Your task to perform on an android device: delete browsing data in the chrome app Image 0: 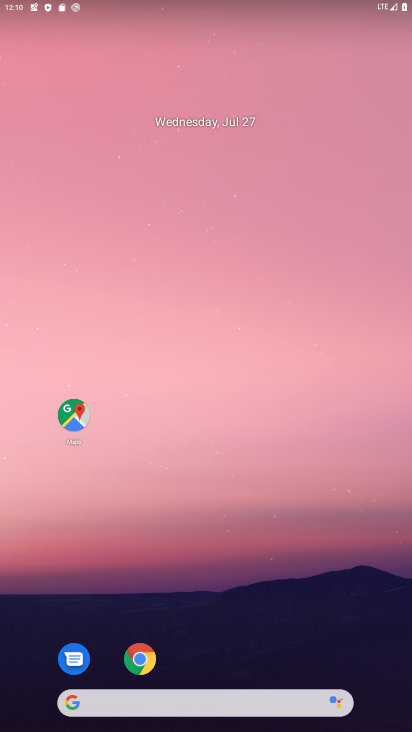
Step 0: click (141, 656)
Your task to perform on an android device: delete browsing data in the chrome app Image 1: 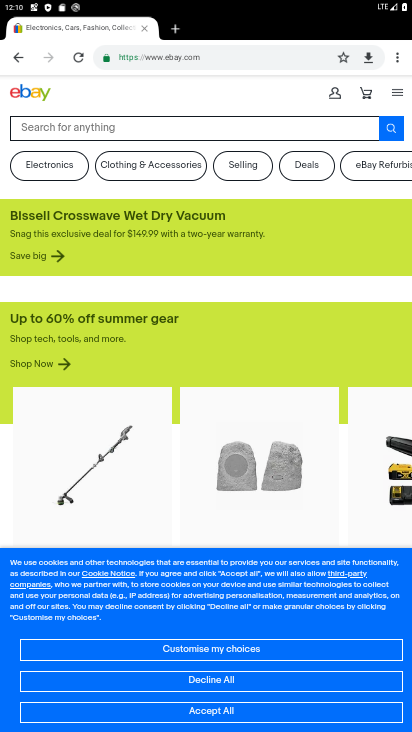
Step 1: click (393, 48)
Your task to perform on an android device: delete browsing data in the chrome app Image 2: 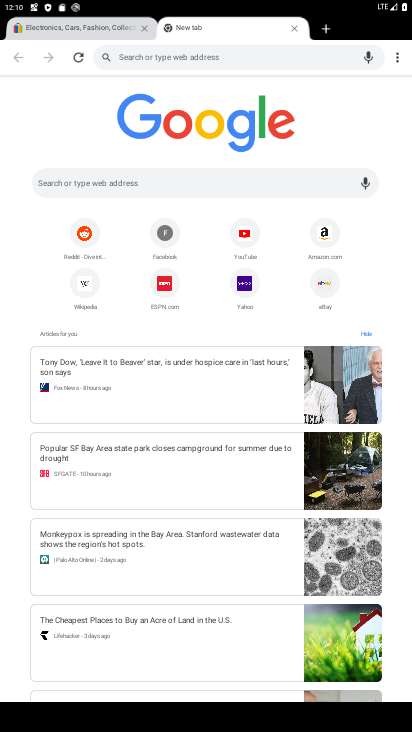
Step 2: click (394, 55)
Your task to perform on an android device: delete browsing data in the chrome app Image 3: 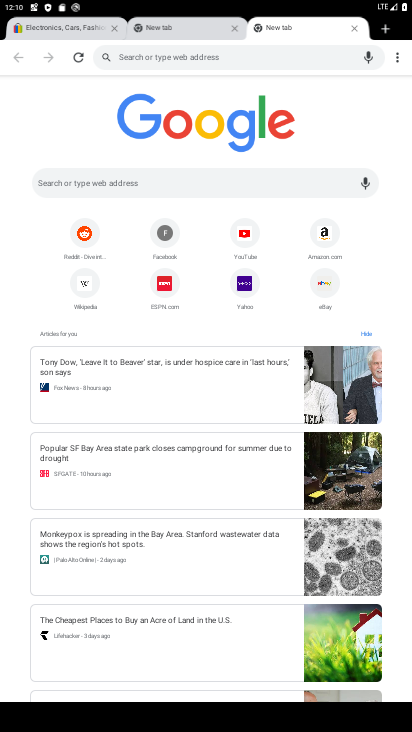
Step 3: click (111, 27)
Your task to perform on an android device: delete browsing data in the chrome app Image 4: 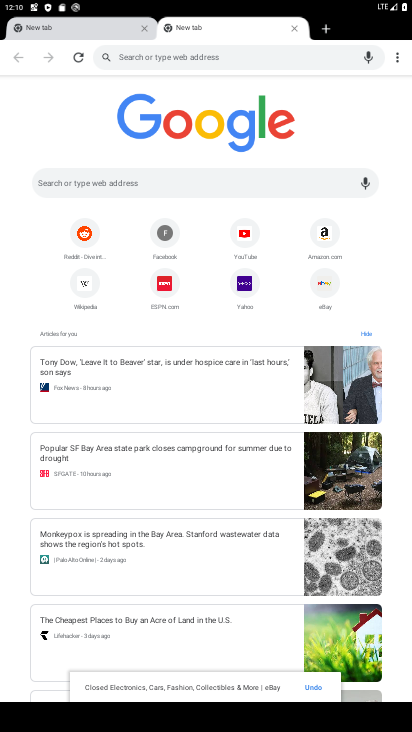
Step 4: click (111, 27)
Your task to perform on an android device: delete browsing data in the chrome app Image 5: 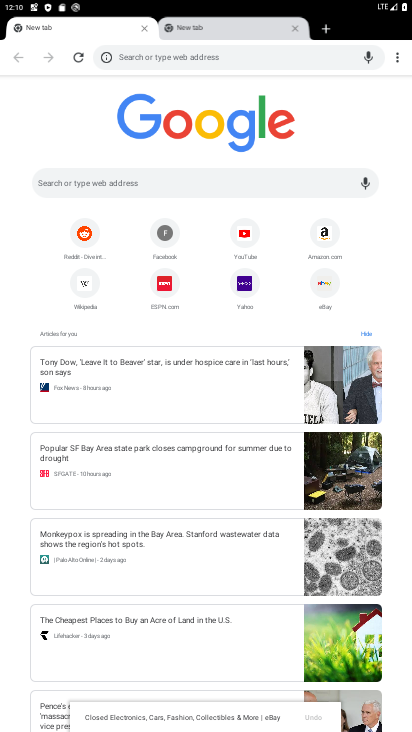
Step 5: click (146, 30)
Your task to perform on an android device: delete browsing data in the chrome app Image 6: 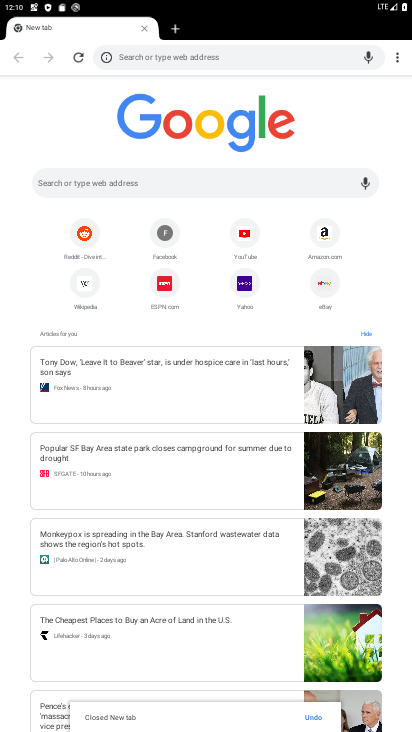
Step 6: click (398, 53)
Your task to perform on an android device: delete browsing data in the chrome app Image 7: 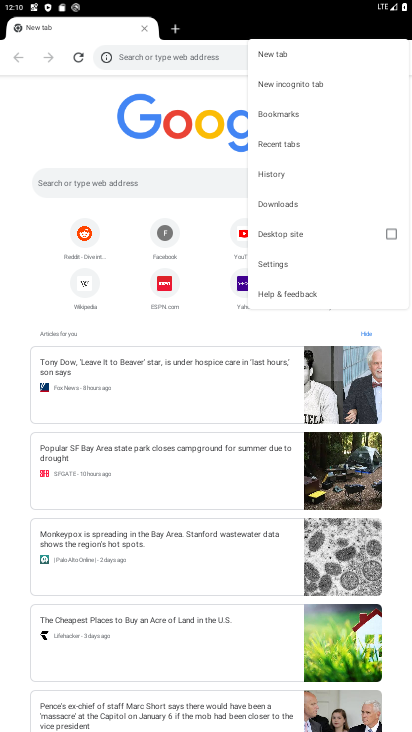
Step 7: click (282, 169)
Your task to perform on an android device: delete browsing data in the chrome app Image 8: 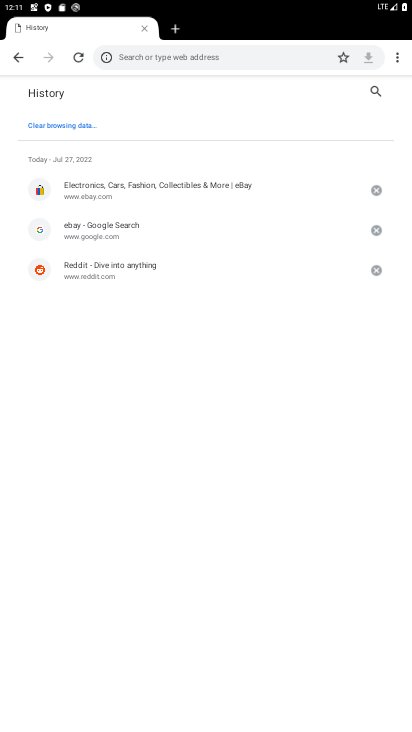
Step 8: click (52, 123)
Your task to perform on an android device: delete browsing data in the chrome app Image 9: 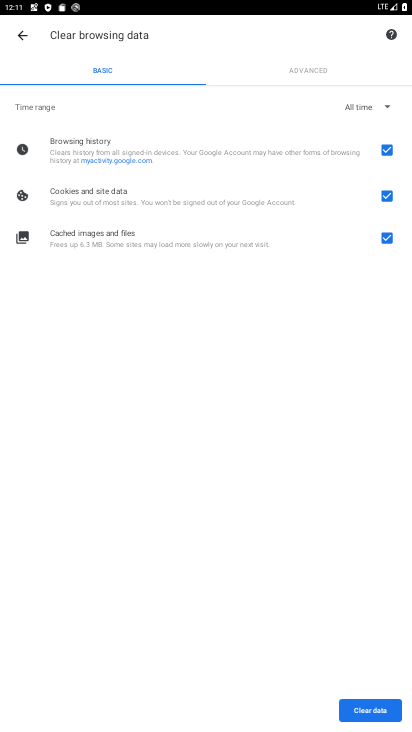
Step 9: click (378, 713)
Your task to perform on an android device: delete browsing data in the chrome app Image 10: 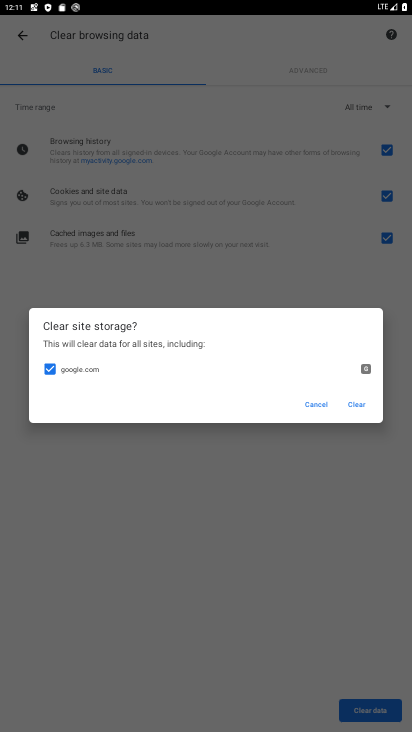
Step 10: click (356, 406)
Your task to perform on an android device: delete browsing data in the chrome app Image 11: 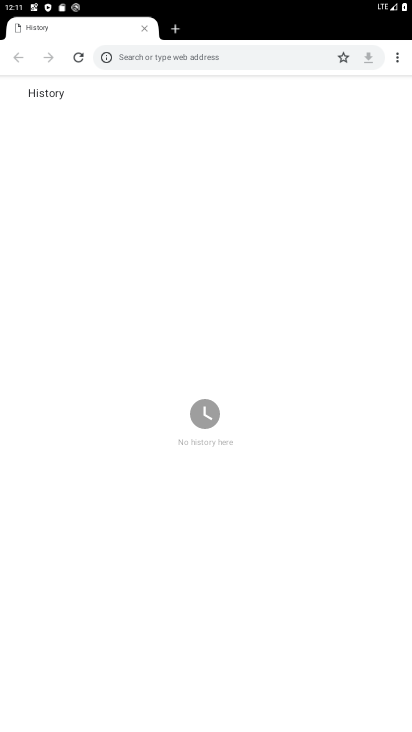
Step 11: task complete